Your task to perform on an android device: set default search engine in the chrome app Image 0: 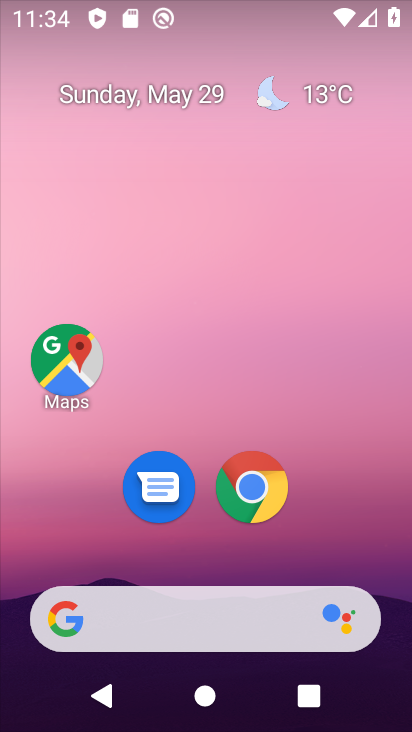
Step 0: click (271, 485)
Your task to perform on an android device: set default search engine in the chrome app Image 1: 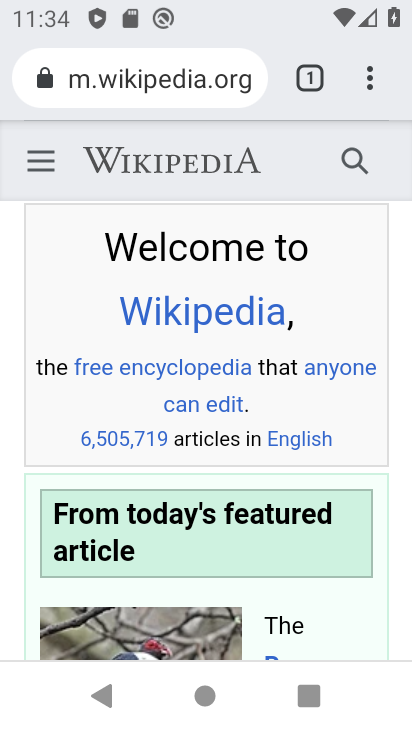
Step 1: click (384, 95)
Your task to perform on an android device: set default search engine in the chrome app Image 2: 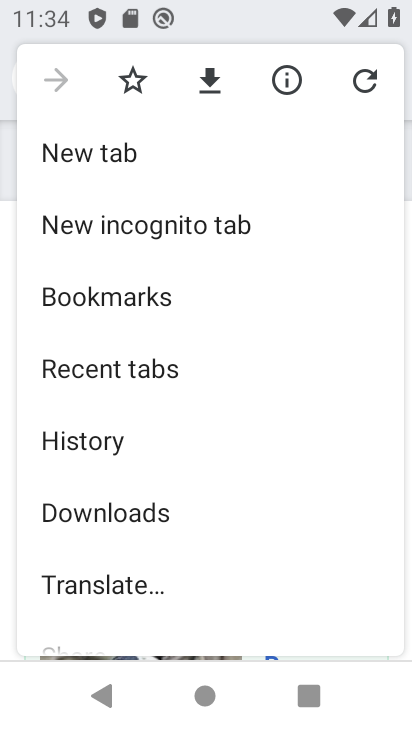
Step 2: drag from (285, 520) to (262, 330)
Your task to perform on an android device: set default search engine in the chrome app Image 3: 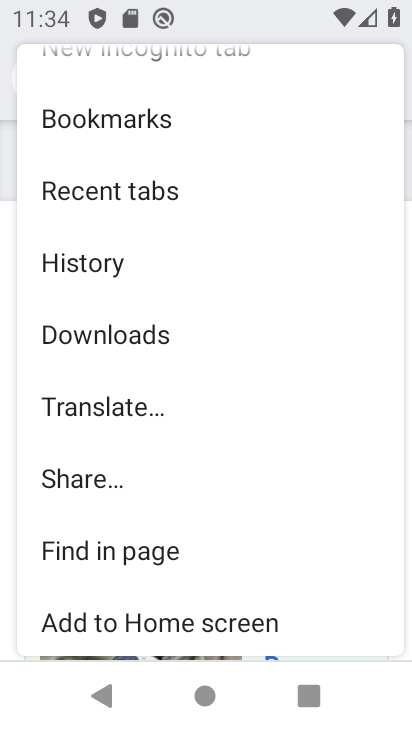
Step 3: drag from (226, 588) to (223, 310)
Your task to perform on an android device: set default search engine in the chrome app Image 4: 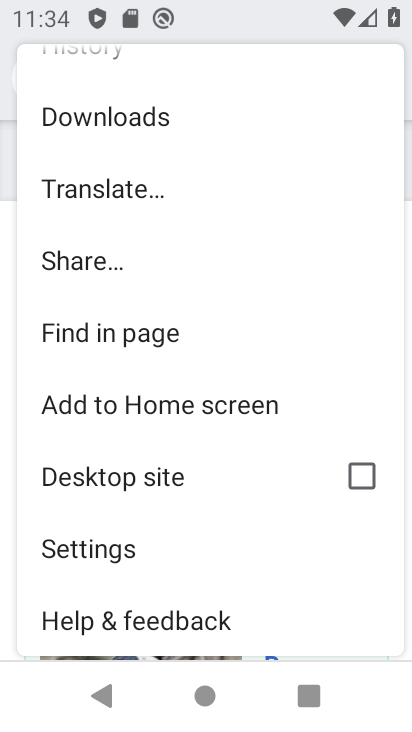
Step 4: click (186, 550)
Your task to perform on an android device: set default search engine in the chrome app Image 5: 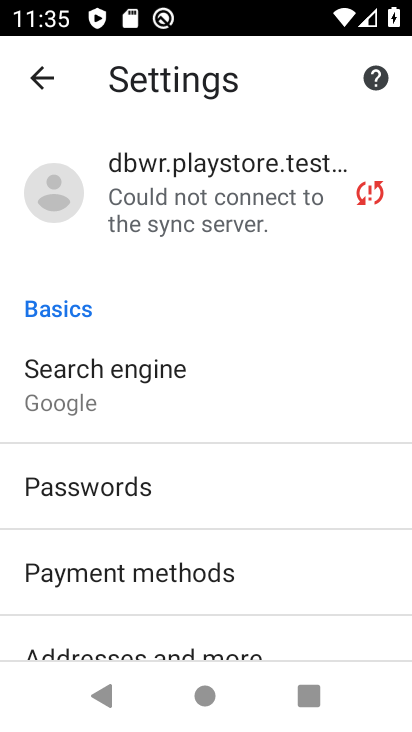
Step 5: click (175, 372)
Your task to perform on an android device: set default search engine in the chrome app Image 6: 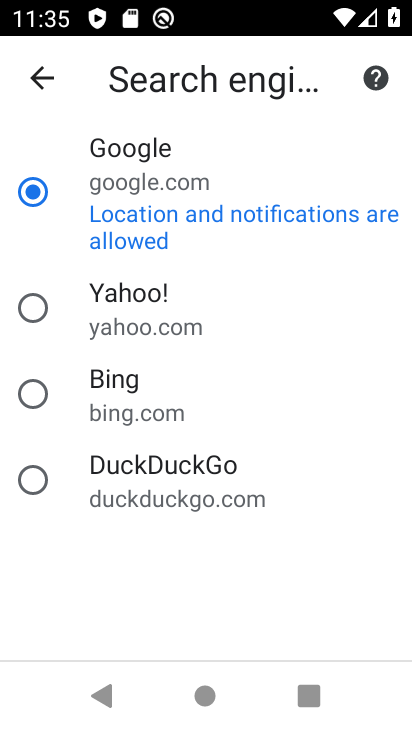
Step 6: click (133, 388)
Your task to perform on an android device: set default search engine in the chrome app Image 7: 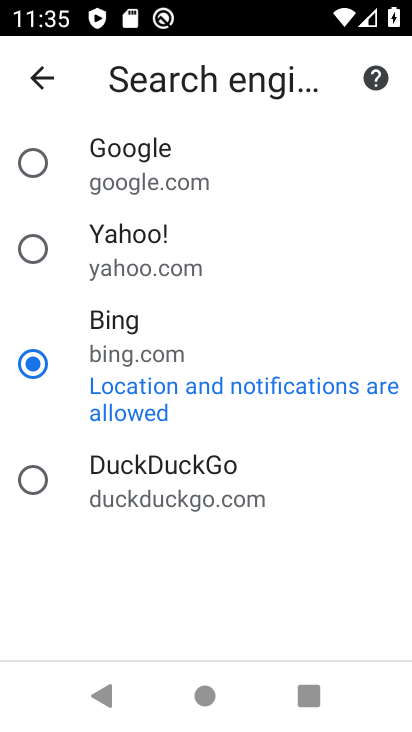
Step 7: task complete